Your task to perform on an android device: turn pop-ups on in chrome Image 0: 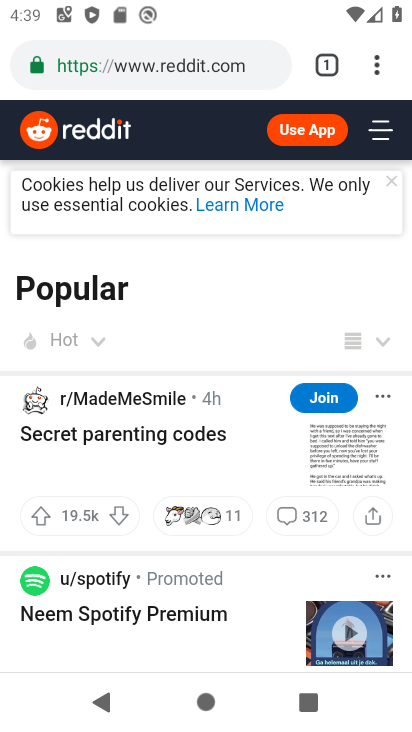
Step 0: click (378, 60)
Your task to perform on an android device: turn pop-ups on in chrome Image 1: 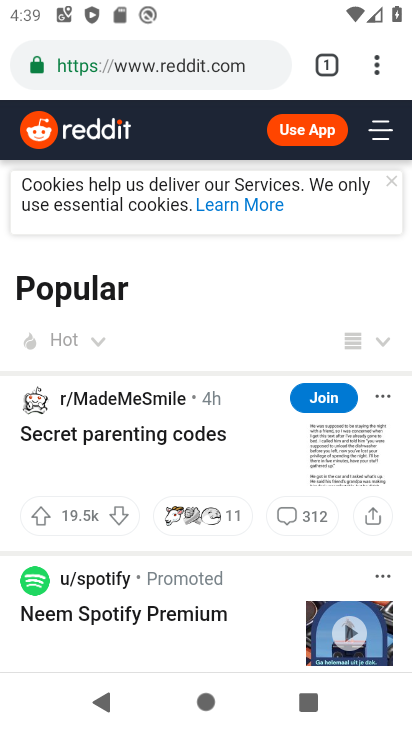
Step 1: click (378, 60)
Your task to perform on an android device: turn pop-ups on in chrome Image 2: 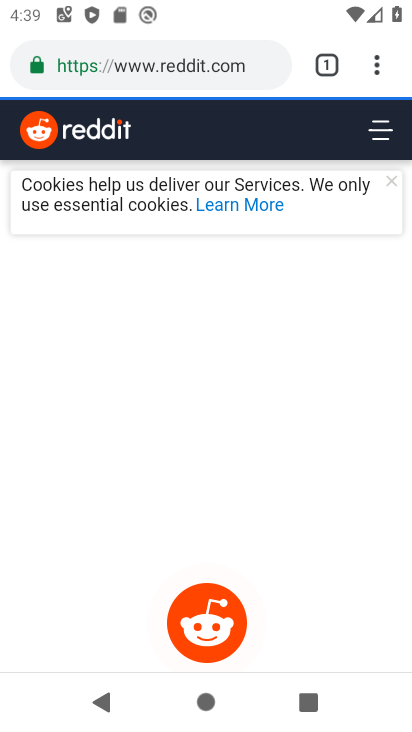
Step 2: click (384, 64)
Your task to perform on an android device: turn pop-ups on in chrome Image 3: 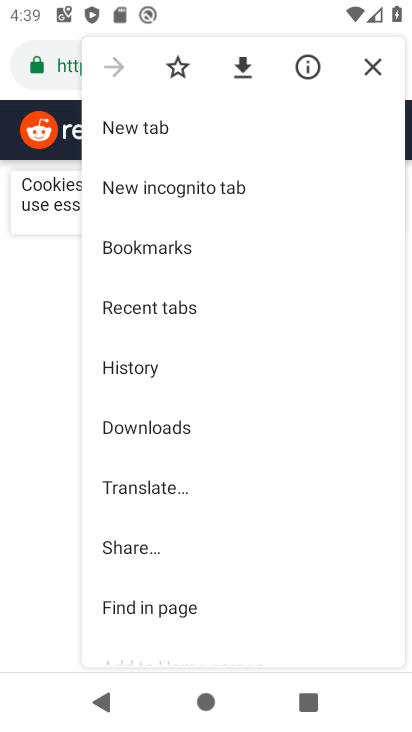
Step 3: drag from (126, 610) to (240, 148)
Your task to perform on an android device: turn pop-ups on in chrome Image 4: 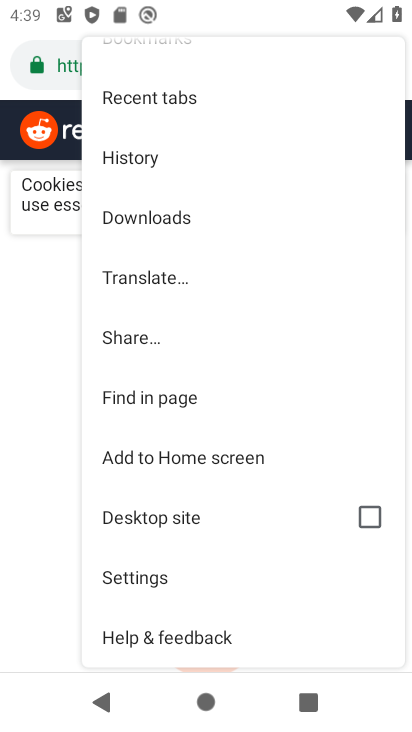
Step 4: click (127, 574)
Your task to perform on an android device: turn pop-ups on in chrome Image 5: 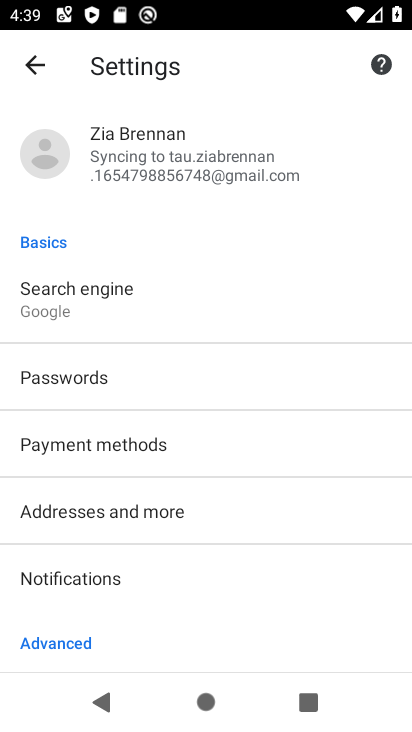
Step 5: drag from (180, 560) to (367, 42)
Your task to perform on an android device: turn pop-ups on in chrome Image 6: 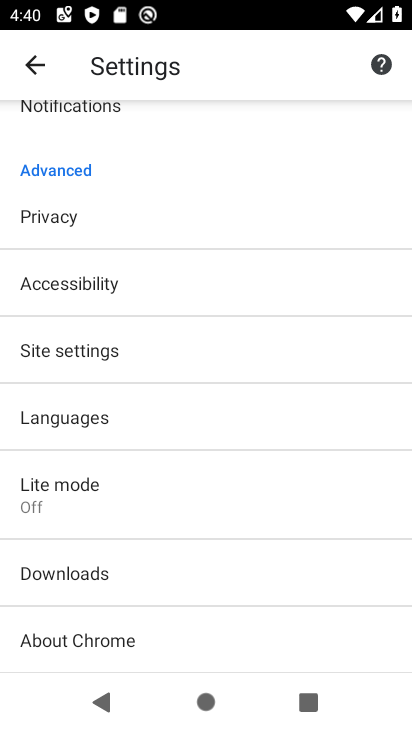
Step 6: drag from (127, 610) to (149, 310)
Your task to perform on an android device: turn pop-ups on in chrome Image 7: 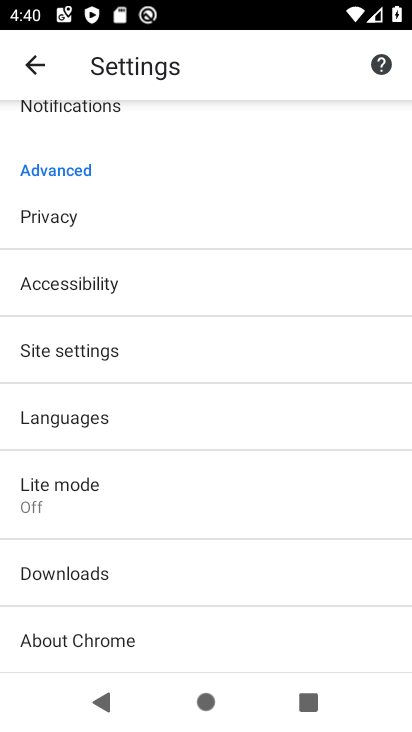
Step 7: click (147, 334)
Your task to perform on an android device: turn pop-ups on in chrome Image 8: 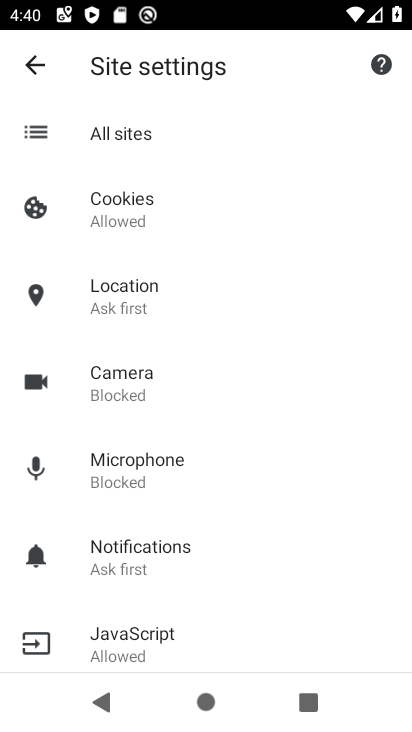
Step 8: drag from (170, 630) to (167, 357)
Your task to perform on an android device: turn pop-ups on in chrome Image 9: 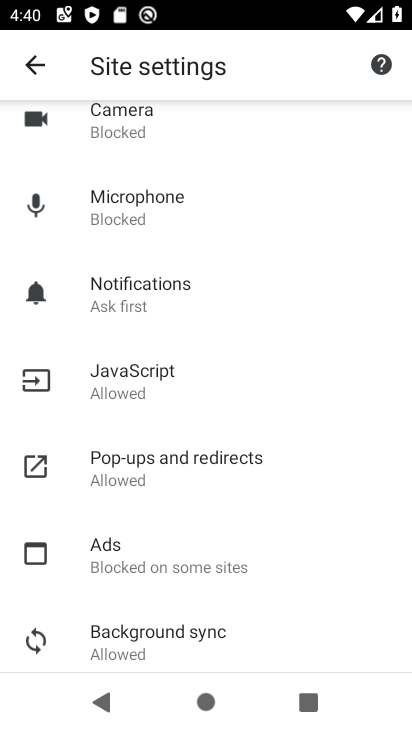
Step 9: click (251, 459)
Your task to perform on an android device: turn pop-ups on in chrome Image 10: 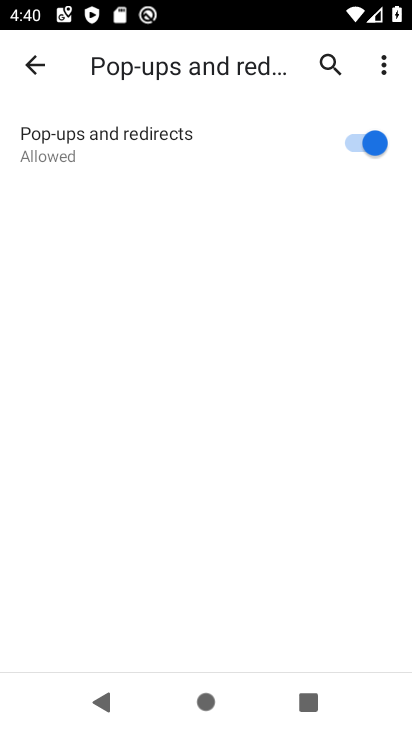
Step 10: task complete